Your task to perform on an android device: toggle airplane mode Image 0: 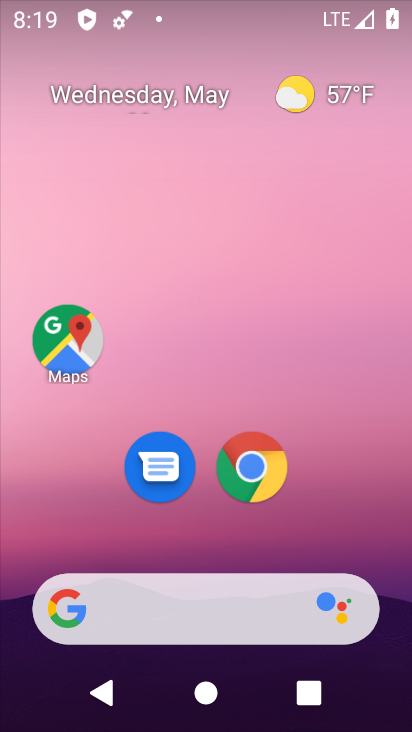
Step 0: drag from (365, 622) to (80, 93)
Your task to perform on an android device: toggle airplane mode Image 1: 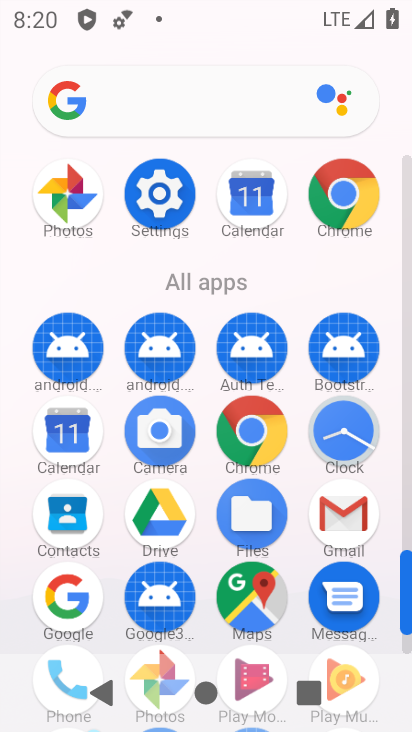
Step 1: click (155, 197)
Your task to perform on an android device: toggle airplane mode Image 2: 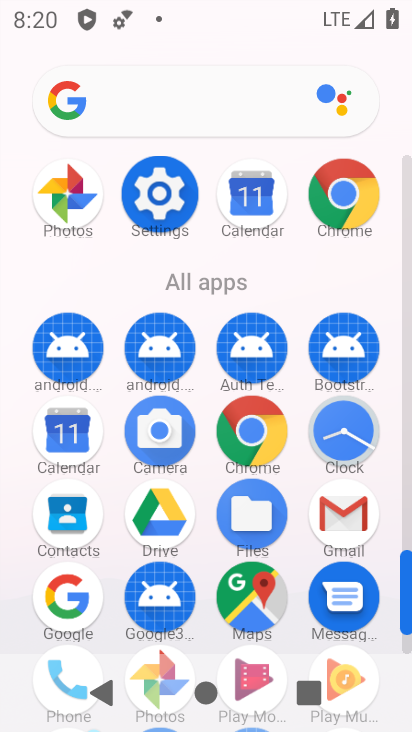
Step 2: click (155, 197)
Your task to perform on an android device: toggle airplane mode Image 3: 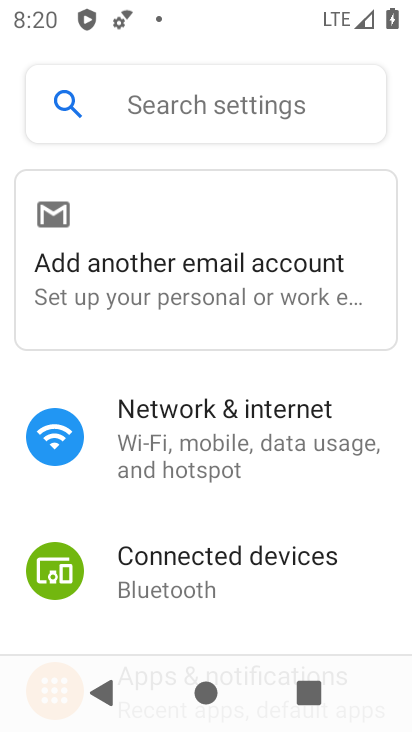
Step 3: drag from (220, 271) to (163, 172)
Your task to perform on an android device: toggle airplane mode Image 4: 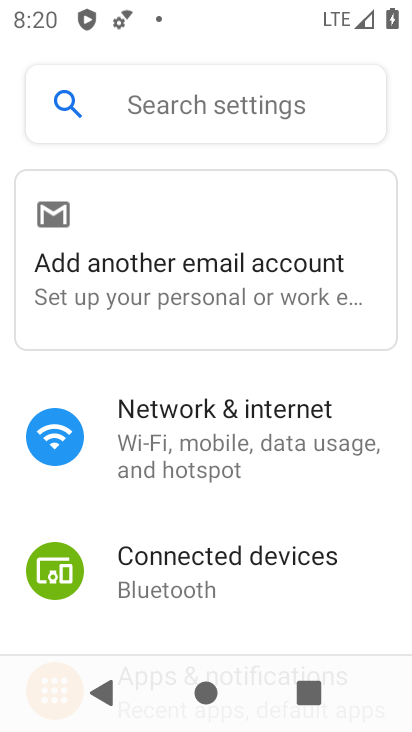
Step 4: drag from (182, 317) to (204, 86)
Your task to perform on an android device: toggle airplane mode Image 5: 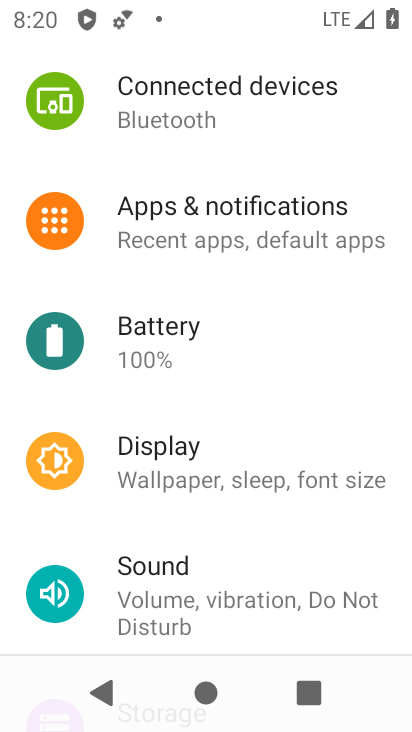
Step 5: drag from (208, 443) to (181, 182)
Your task to perform on an android device: toggle airplane mode Image 6: 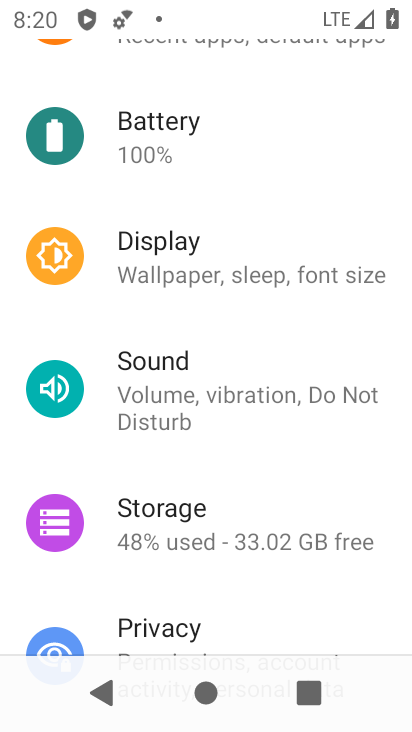
Step 6: drag from (238, 230) to (179, 444)
Your task to perform on an android device: toggle airplane mode Image 7: 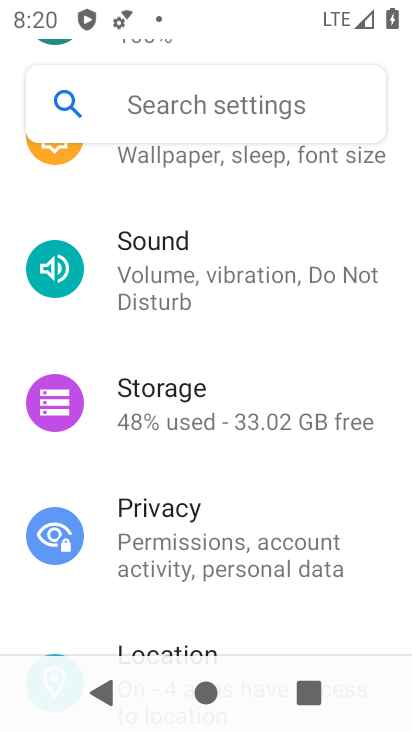
Step 7: drag from (125, 304) to (138, 577)
Your task to perform on an android device: toggle airplane mode Image 8: 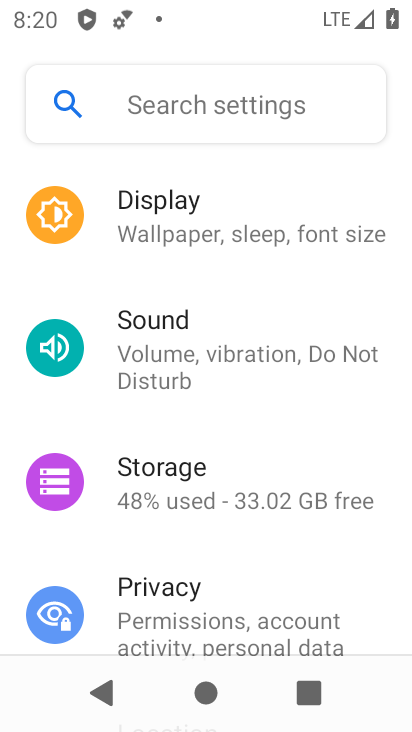
Step 8: drag from (220, 545) to (297, 520)
Your task to perform on an android device: toggle airplane mode Image 9: 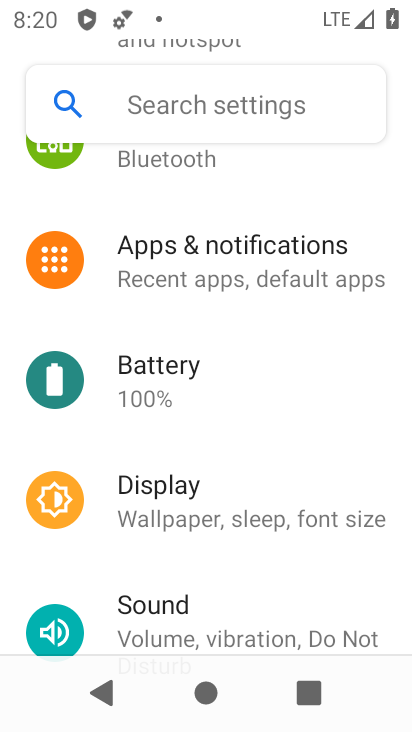
Step 9: drag from (253, 260) to (252, 492)
Your task to perform on an android device: toggle airplane mode Image 10: 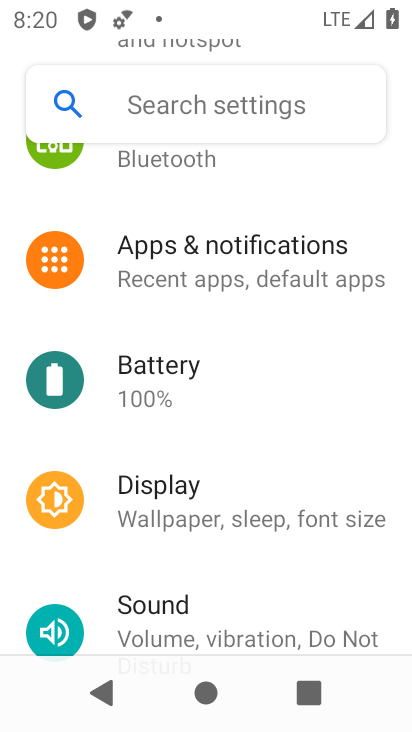
Step 10: drag from (214, 480) to (227, 550)
Your task to perform on an android device: toggle airplane mode Image 11: 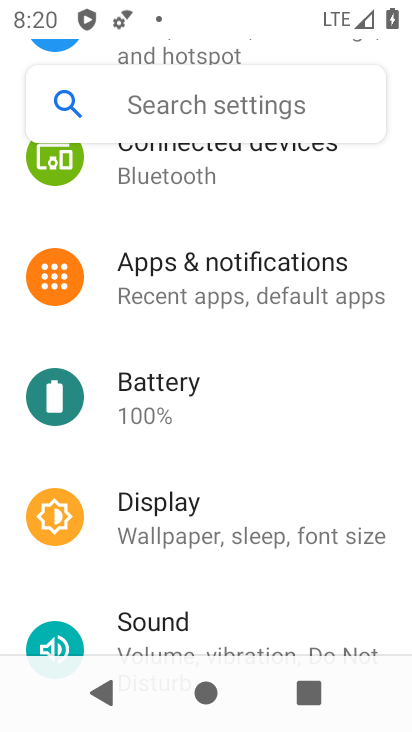
Step 11: drag from (199, 364) to (227, 593)
Your task to perform on an android device: toggle airplane mode Image 12: 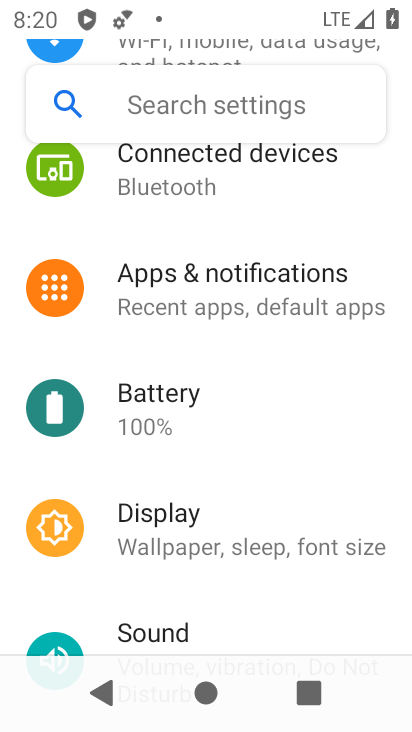
Step 12: drag from (202, 213) to (209, 453)
Your task to perform on an android device: toggle airplane mode Image 13: 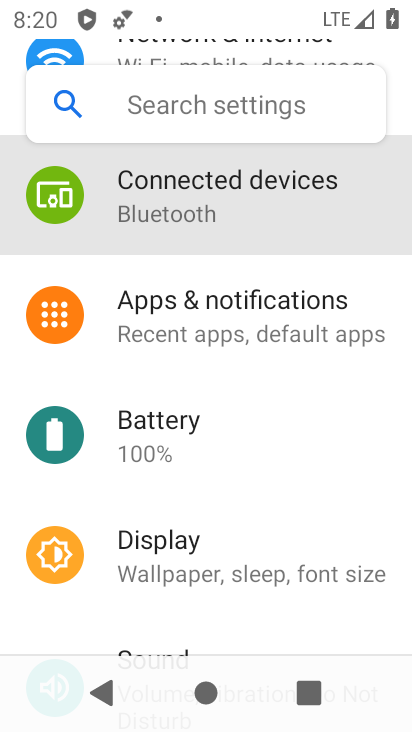
Step 13: drag from (200, 214) to (211, 551)
Your task to perform on an android device: toggle airplane mode Image 14: 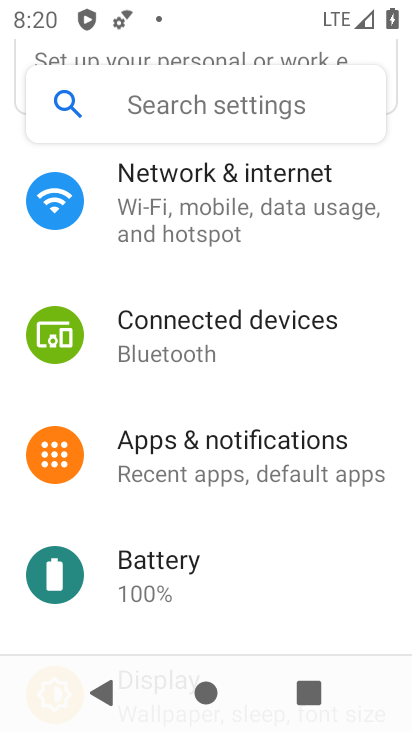
Step 14: click (237, 196)
Your task to perform on an android device: toggle airplane mode Image 15: 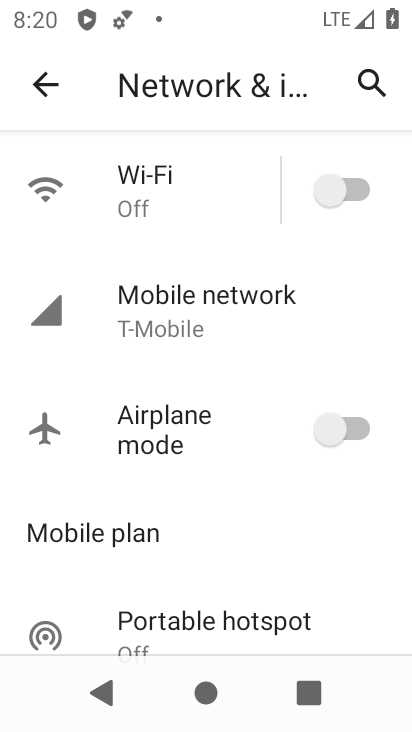
Step 15: click (318, 188)
Your task to perform on an android device: toggle airplane mode Image 16: 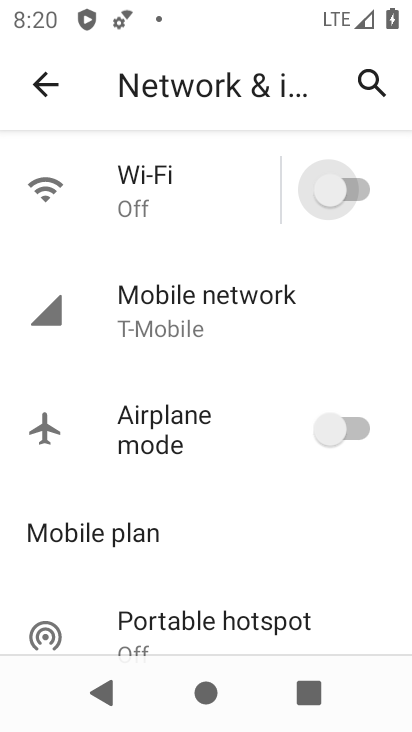
Step 16: click (319, 187)
Your task to perform on an android device: toggle airplane mode Image 17: 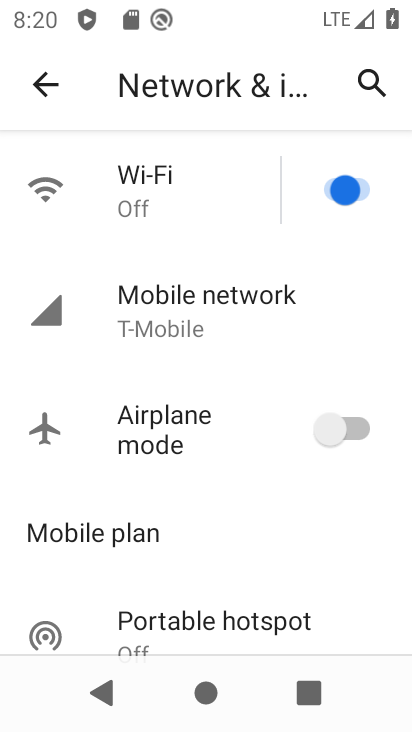
Step 17: click (319, 187)
Your task to perform on an android device: toggle airplane mode Image 18: 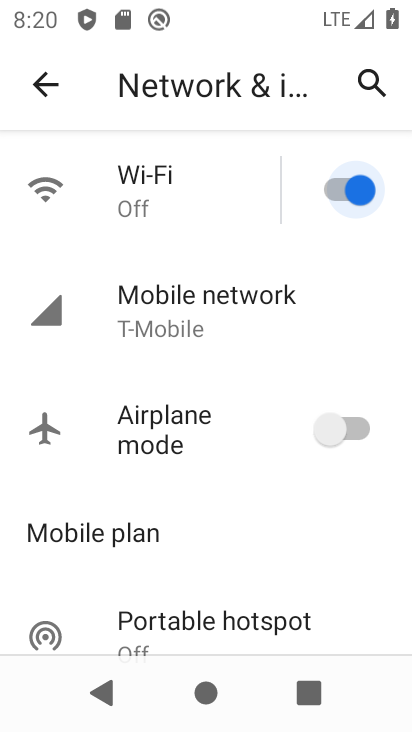
Step 18: click (319, 187)
Your task to perform on an android device: toggle airplane mode Image 19: 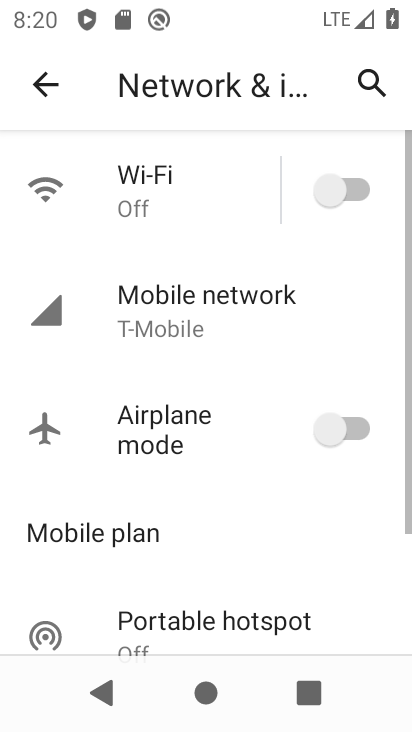
Step 19: click (330, 199)
Your task to perform on an android device: toggle airplane mode Image 20: 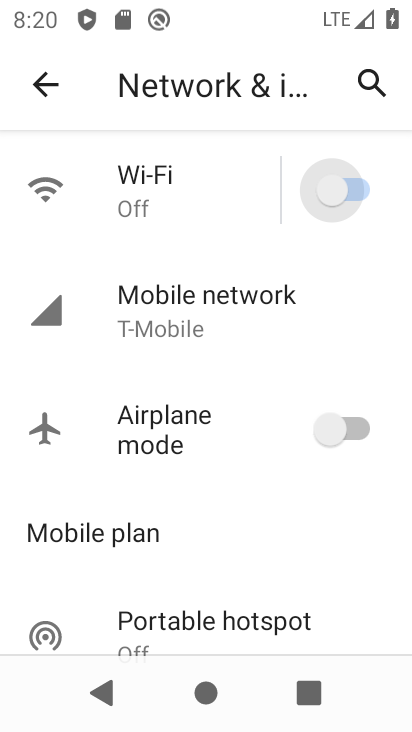
Step 20: click (332, 198)
Your task to perform on an android device: toggle airplane mode Image 21: 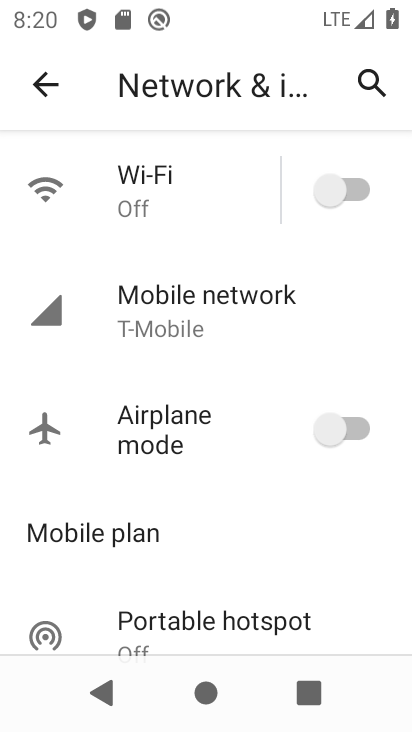
Step 21: click (332, 201)
Your task to perform on an android device: toggle airplane mode Image 22: 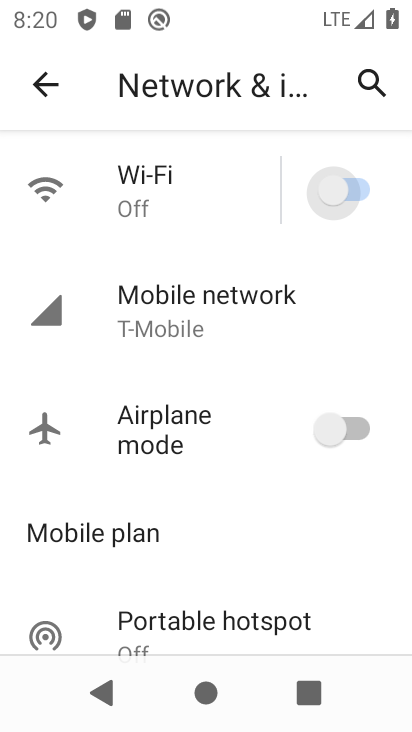
Step 22: click (333, 195)
Your task to perform on an android device: toggle airplane mode Image 23: 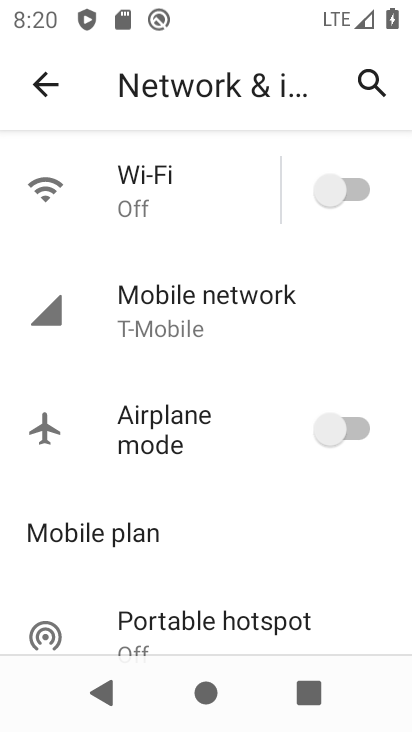
Step 23: click (333, 183)
Your task to perform on an android device: toggle airplane mode Image 24: 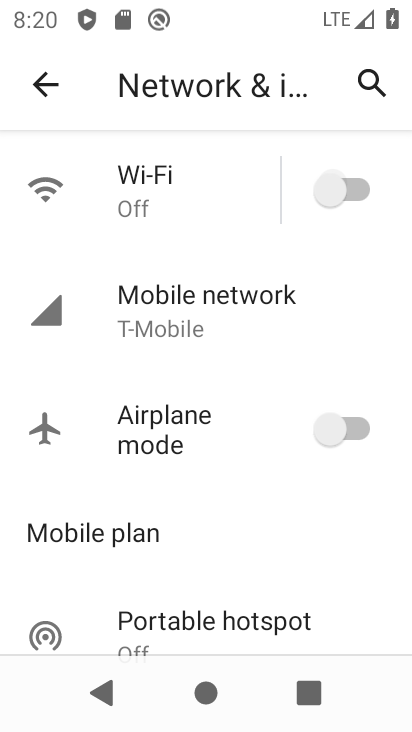
Step 24: click (332, 184)
Your task to perform on an android device: toggle airplane mode Image 25: 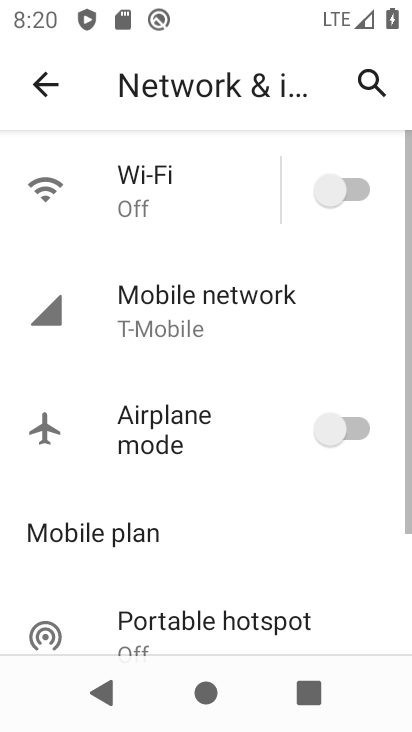
Step 25: click (333, 196)
Your task to perform on an android device: toggle airplane mode Image 26: 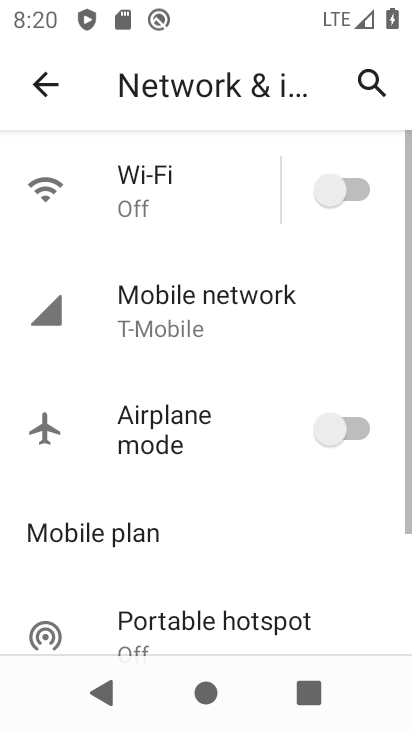
Step 26: click (332, 193)
Your task to perform on an android device: toggle airplane mode Image 27: 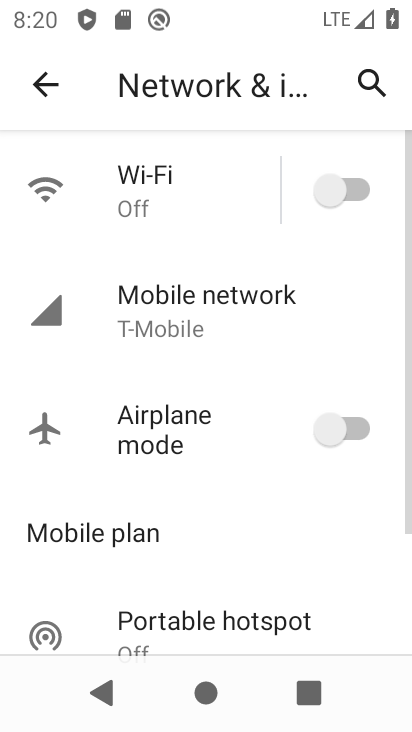
Step 27: task complete